Your task to perform on an android device: Search for seafood restaurants on Google Maps Image 0: 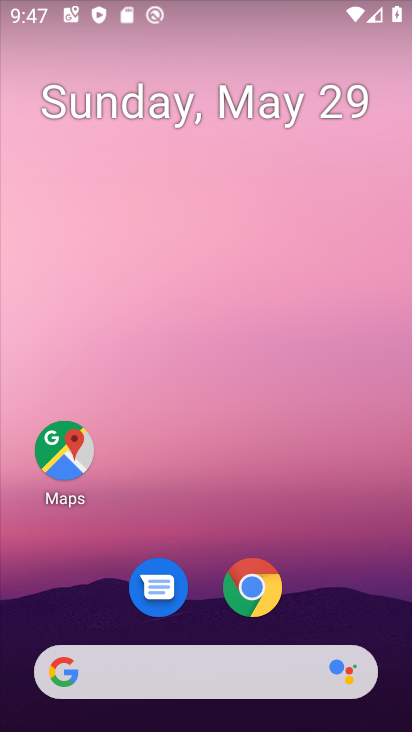
Step 0: click (52, 436)
Your task to perform on an android device: Search for seafood restaurants on Google Maps Image 1: 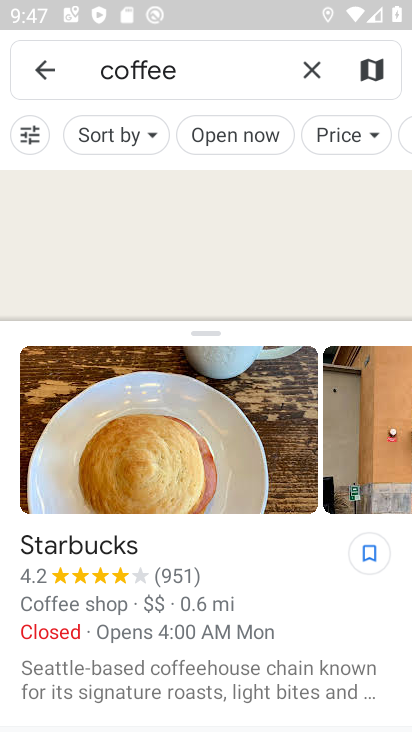
Step 1: click (312, 61)
Your task to perform on an android device: Search for seafood restaurants on Google Maps Image 2: 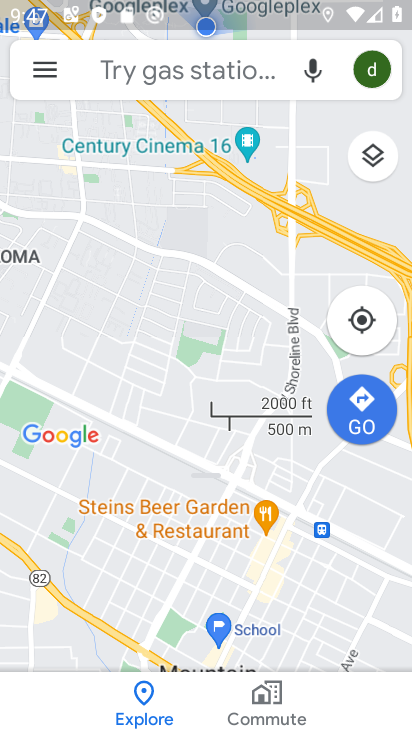
Step 2: click (147, 71)
Your task to perform on an android device: Search for seafood restaurants on Google Maps Image 3: 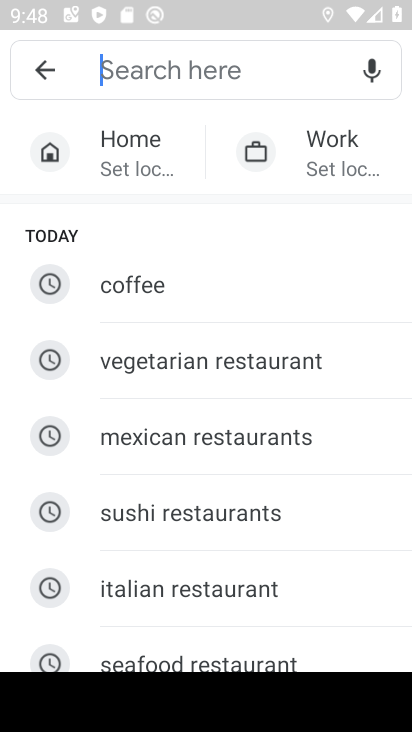
Step 3: click (200, 657)
Your task to perform on an android device: Search for seafood restaurants on Google Maps Image 4: 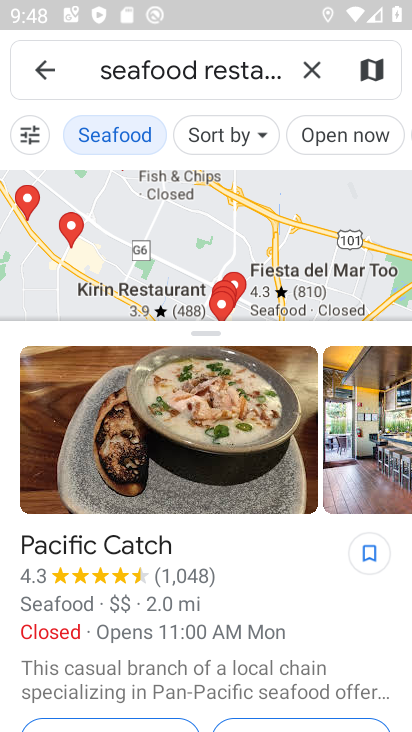
Step 4: task complete